Your task to perform on an android device: Check the weather Image 0: 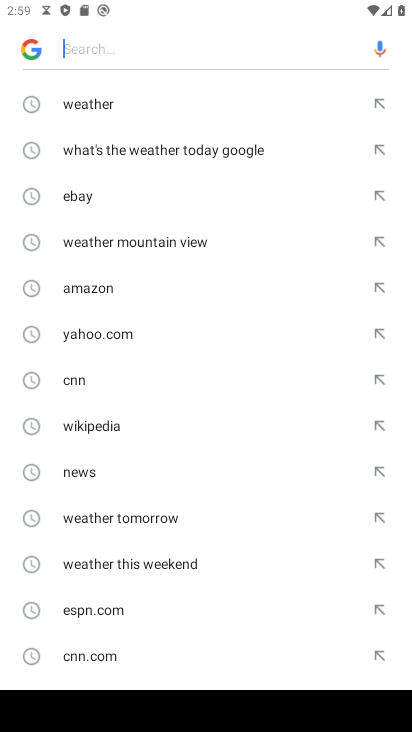
Step 0: type "weather"
Your task to perform on an android device: Check the weather Image 1: 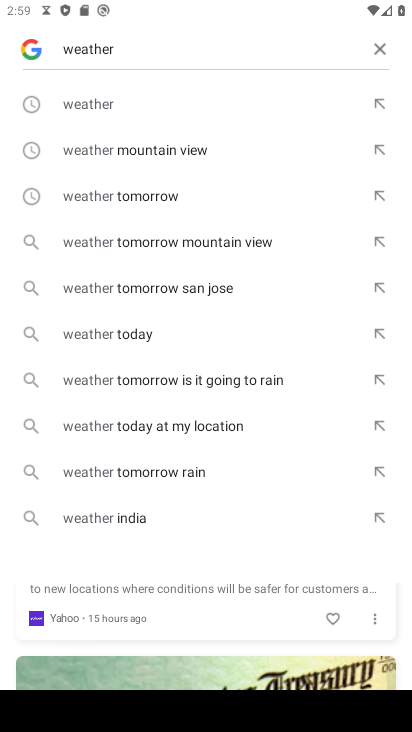
Step 1: click (101, 94)
Your task to perform on an android device: Check the weather Image 2: 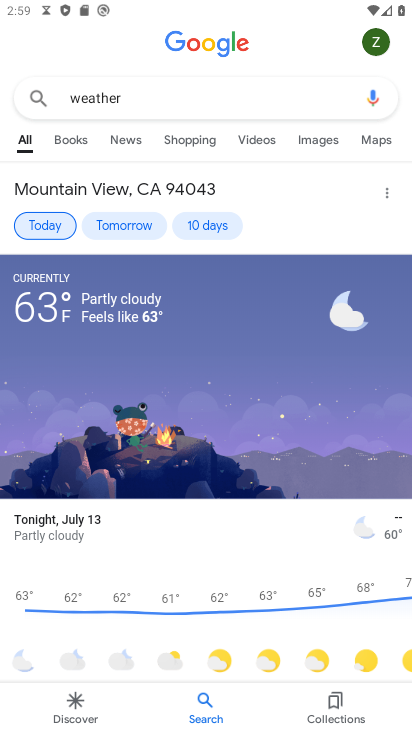
Step 2: task complete